Your task to perform on an android device: turn off picture-in-picture Image 0: 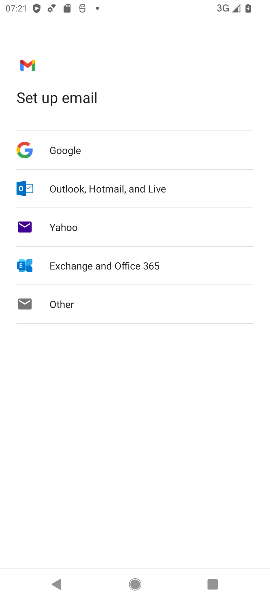
Step 0: press home button
Your task to perform on an android device: turn off picture-in-picture Image 1: 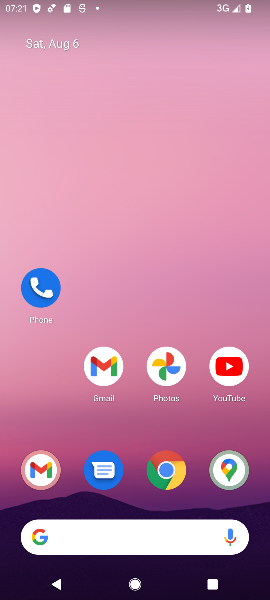
Step 1: press home button
Your task to perform on an android device: turn off picture-in-picture Image 2: 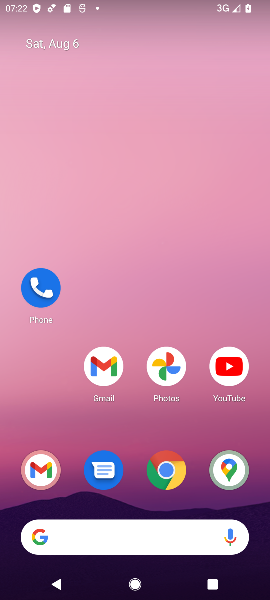
Step 2: click (165, 466)
Your task to perform on an android device: turn off picture-in-picture Image 3: 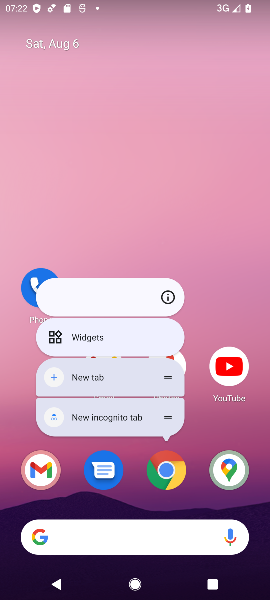
Step 3: click (169, 302)
Your task to perform on an android device: turn off picture-in-picture Image 4: 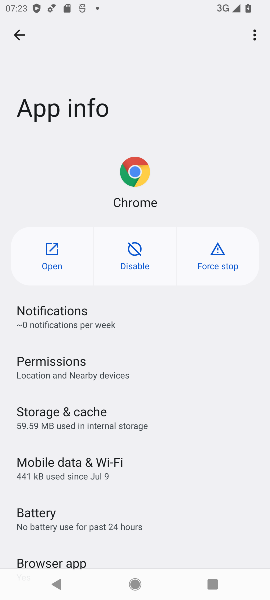
Step 4: drag from (67, 407) to (73, 16)
Your task to perform on an android device: turn off picture-in-picture Image 5: 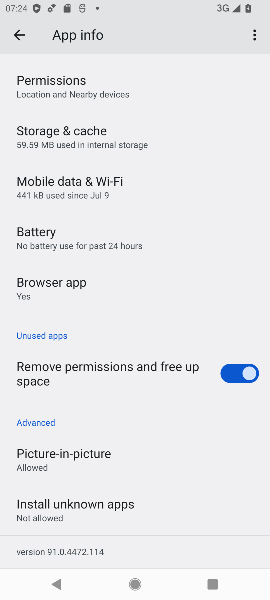
Step 5: click (65, 453)
Your task to perform on an android device: turn off picture-in-picture Image 6: 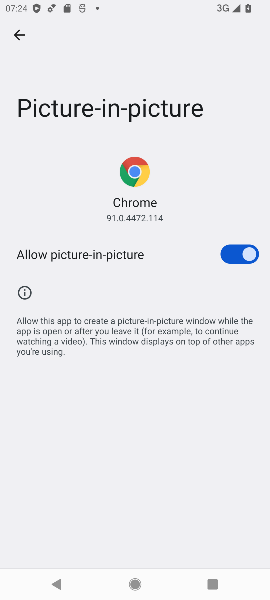
Step 6: click (137, 244)
Your task to perform on an android device: turn off picture-in-picture Image 7: 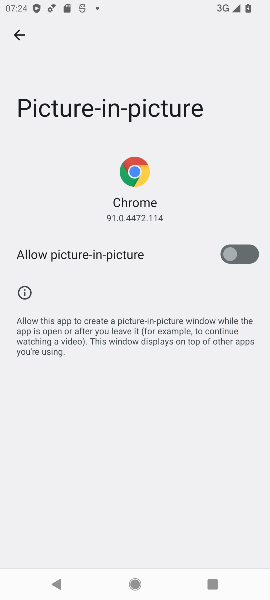
Step 7: task complete